Your task to perform on an android device: Search for beats solo 3 on costco, select the first entry, and add it to the cart. Image 0: 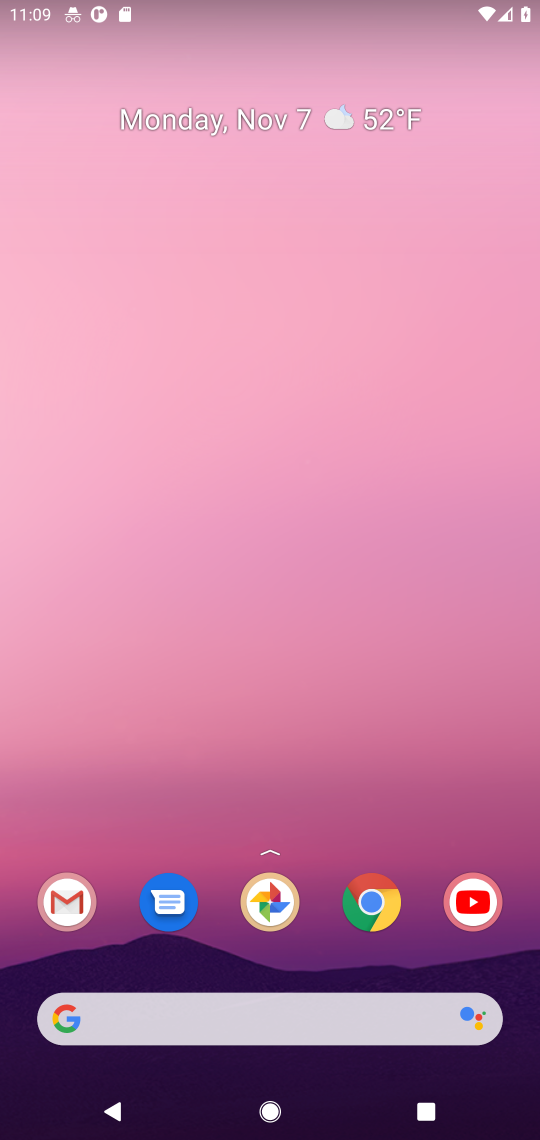
Step 0: click (382, 903)
Your task to perform on an android device: Search for beats solo 3 on costco, select the first entry, and add it to the cart. Image 1: 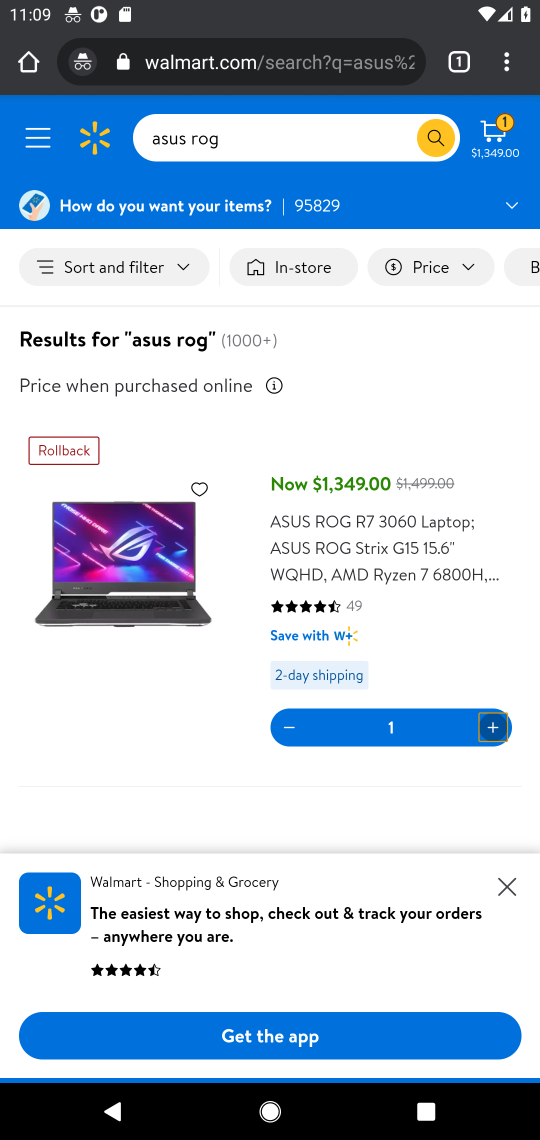
Step 1: click (239, 69)
Your task to perform on an android device: Search for beats solo 3 on costco, select the first entry, and add it to the cart. Image 2: 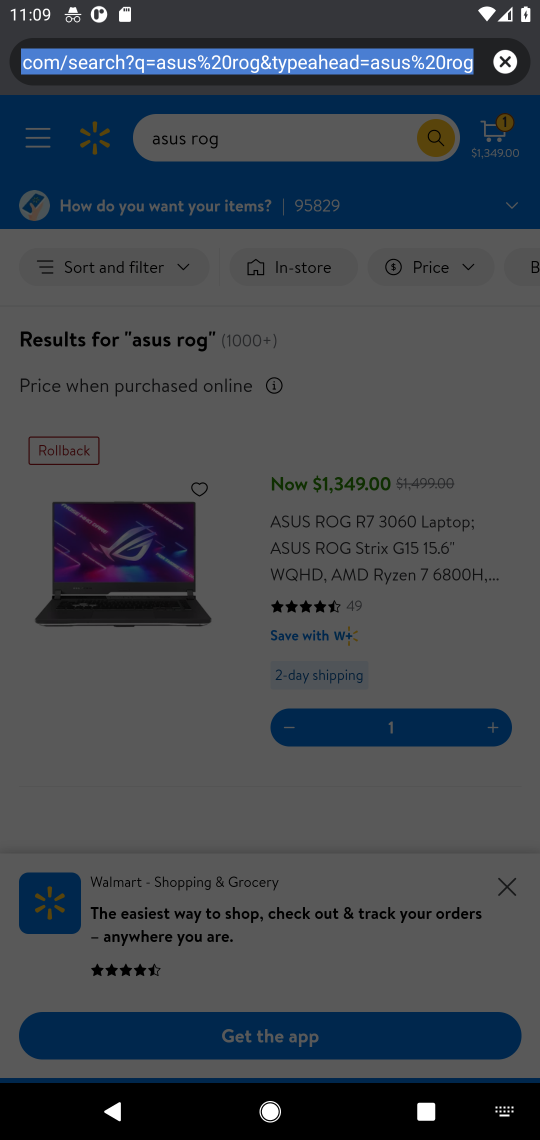
Step 2: type "costco.com"
Your task to perform on an android device: Search for beats solo 3 on costco, select the first entry, and add it to the cart. Image 3: 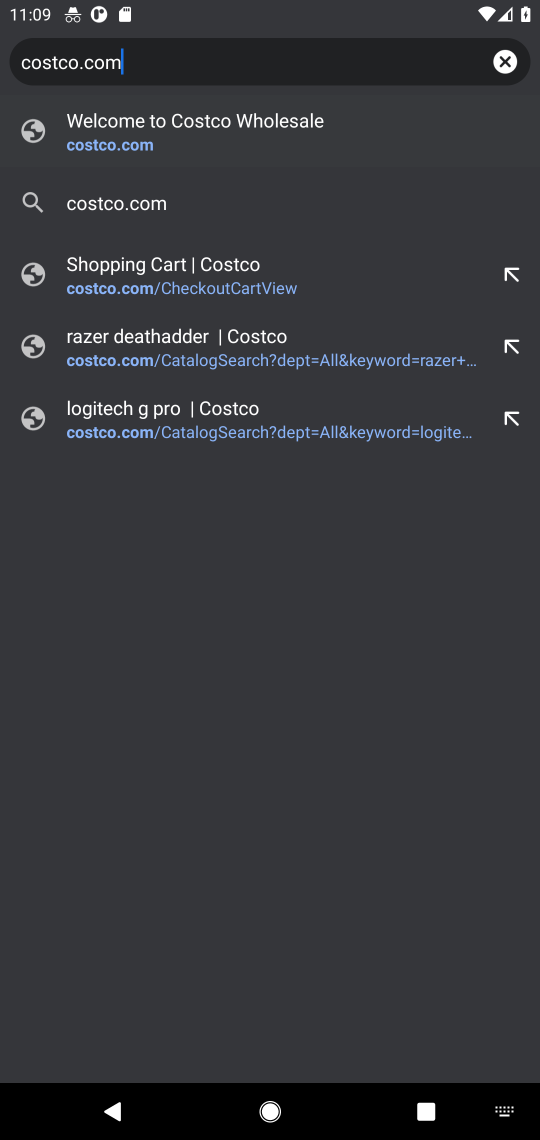
Step 3: click (102, 140)
Your task to perform on an android device: Search for beats solo 3 on costco, select the first entry, and add it to the cart. Image 4: 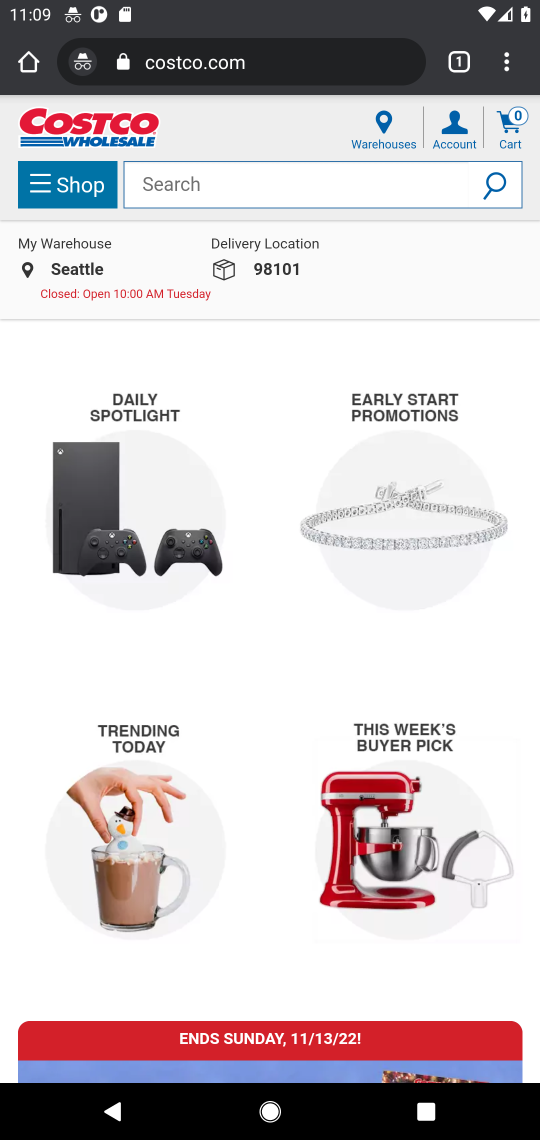
Step 4: click (186, 197)
Your task to perform on an android device: Search for beats solo 3 on costco, select the first entry, and add it to the cart. Image 5: 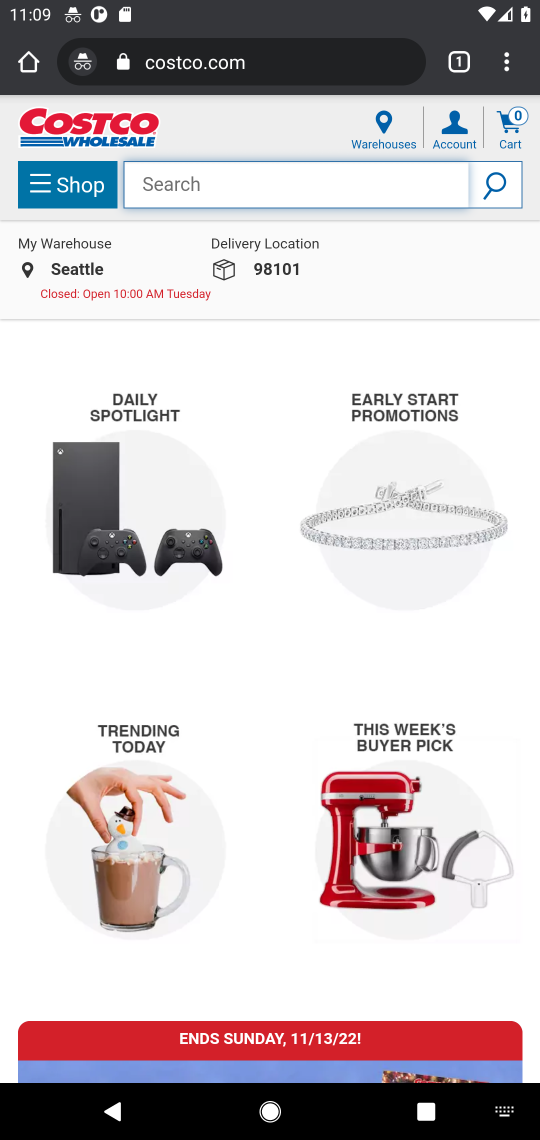
Step 5: type " beats solo 3"
Your task to perform on an android device: Search for beats solo 3 on costco, select the first entry, and add it to the cart. Image 6: 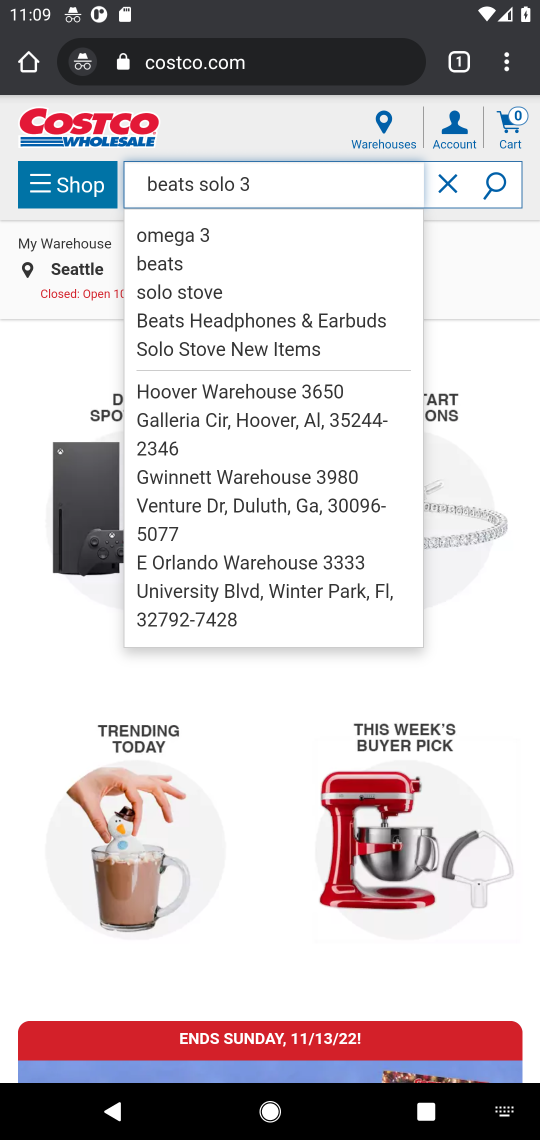
Step 6: click (499, 178)
Your task to perform on an android device: Search for beats solo 3 on costco, select the first entry, and add it to the cart. Image 7: 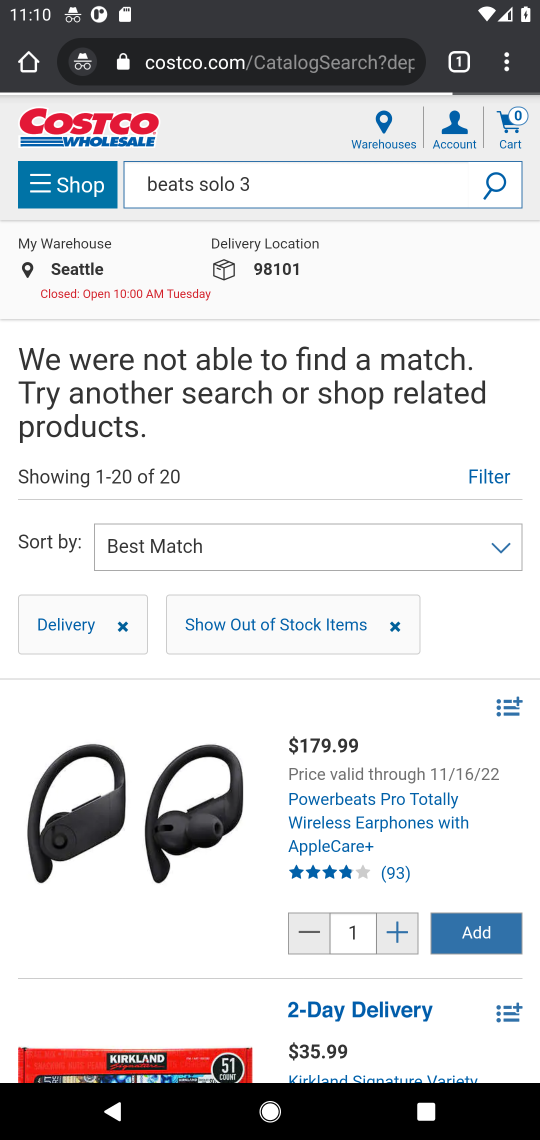
Step 7: task complete